Your task to perform on an android device: toggle notification dots Image 0: 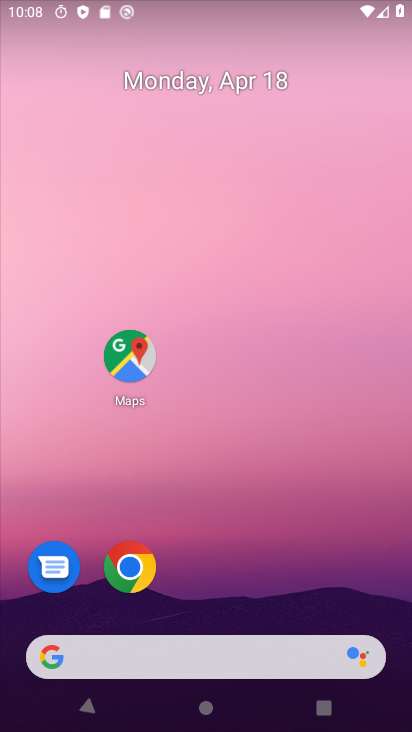
Step 0: drag from (206, 690) to (344, 249)
Your task to perform on an android device: toggle notification dots Image 1: 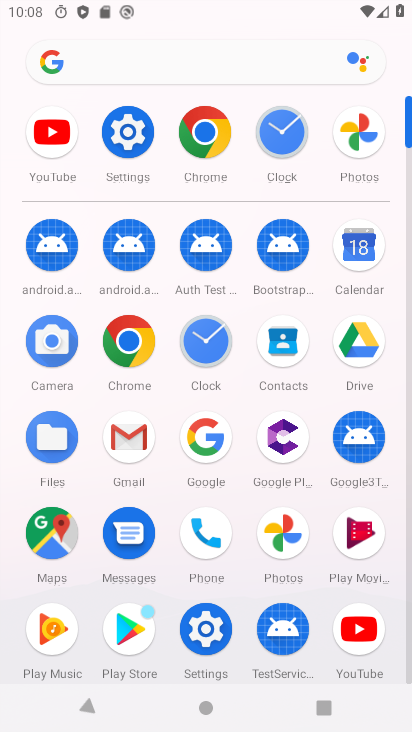
Step 1: click (194, 599)
Your task to perform on an android device: toggle notification dots Image 2: 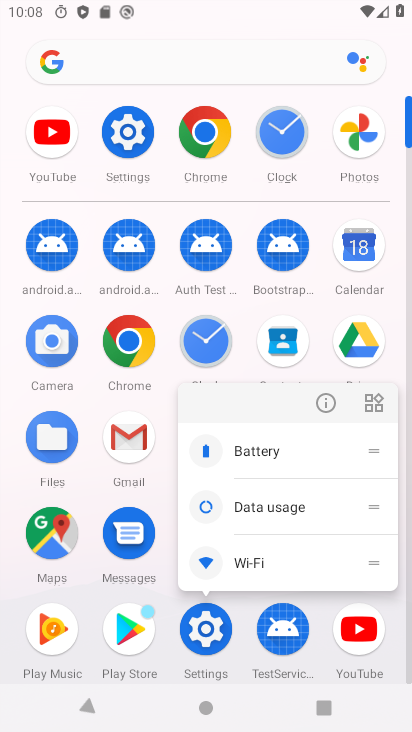
Step 2: click (200, 638)
Your task to perform on an android device: toggle notification dots Image 3: 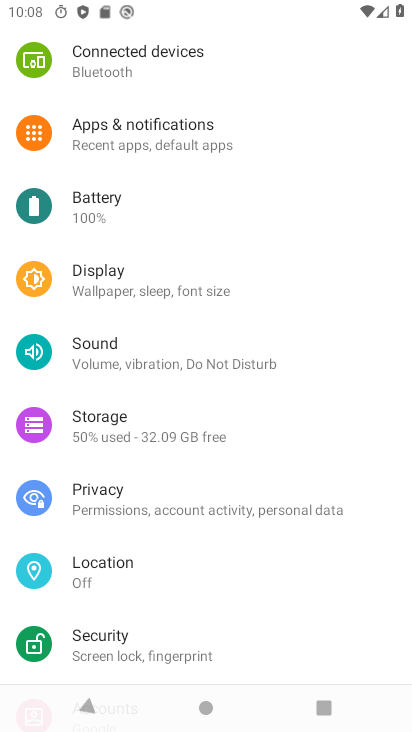
Step 3: drag from (165, 230) to (5, 514)
Your task to perform on an android device: toggle notification dots Image 4: 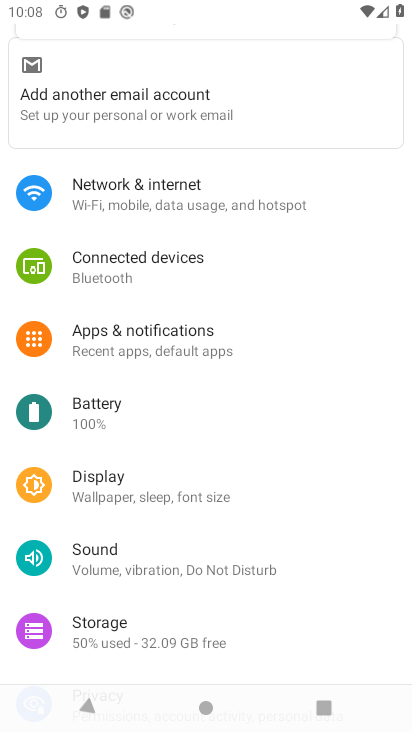
Step 4: click (213, 73)
Your task to perform on an android device: toggle notification dots Image 5: 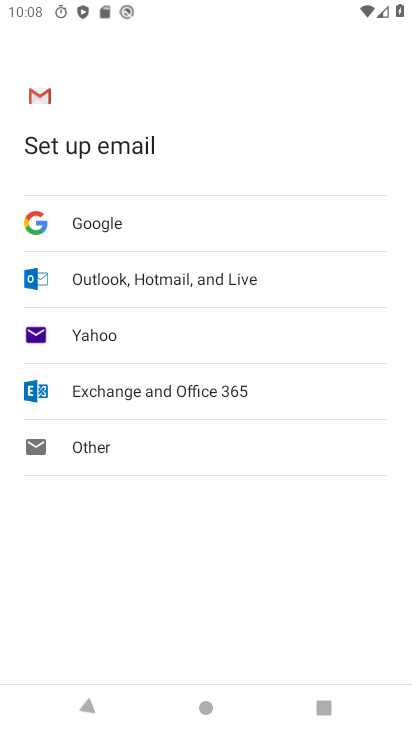
Step 5: click (87, 703)
Your task to perform on an android device: toggle notification dots Image 6: 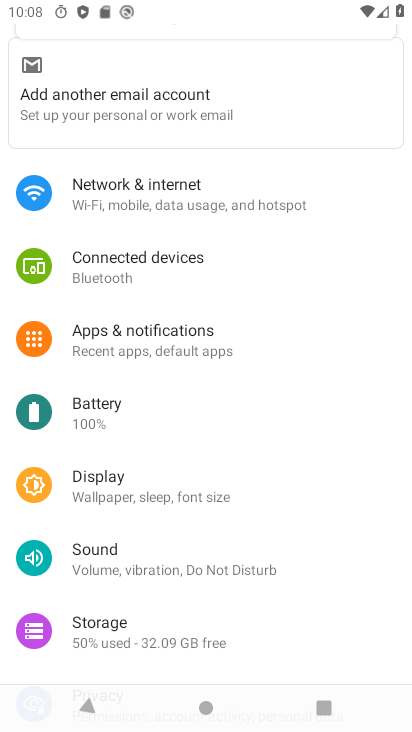
Step 6: drag from (208, 226) to (131, 445)
Your task to perform on an android device: toggle notification dots Image 7: 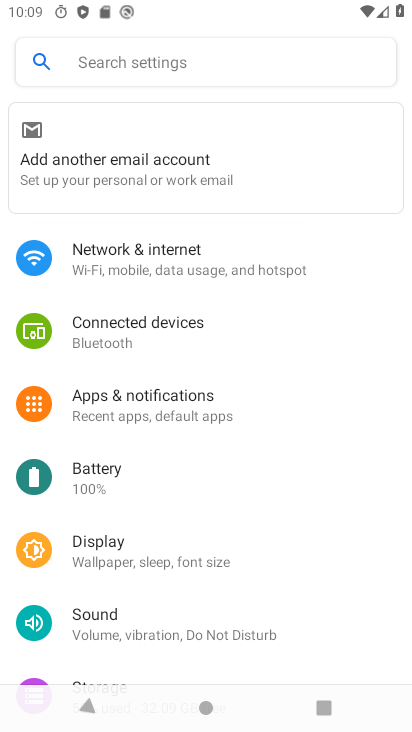
Step 7: click (213, 79)
Your task to perform on an android device: toggle notification dots Image 8: 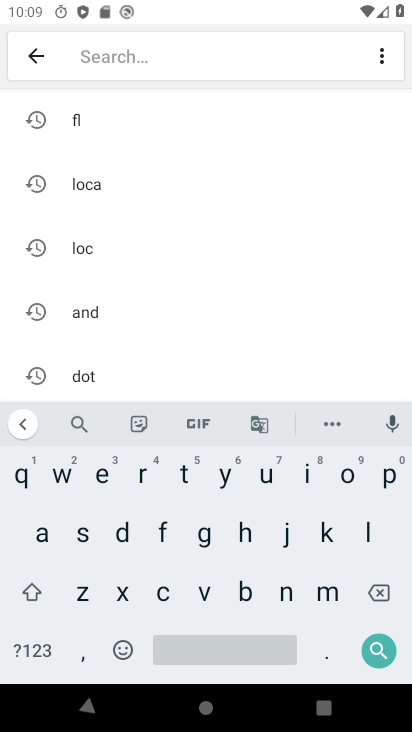
Step 8: click (117, 531)
Your task to perform on an android device: toggle notification dots Image 9: 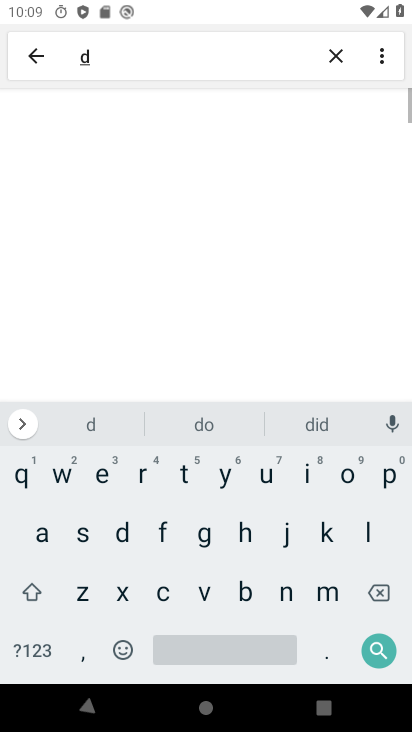
Step 9: click (349, 471)
Your task to perform on an android device: toggle notification dots Image 10: 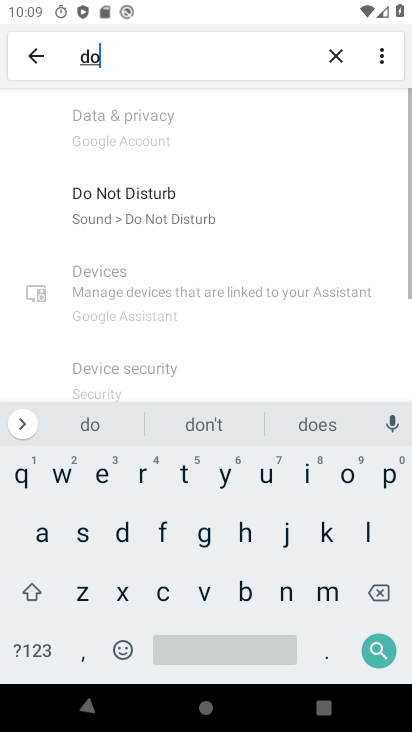
Step 10: click (191, 465)
Your task to perform on an android device: toggle notification dots Image 11: 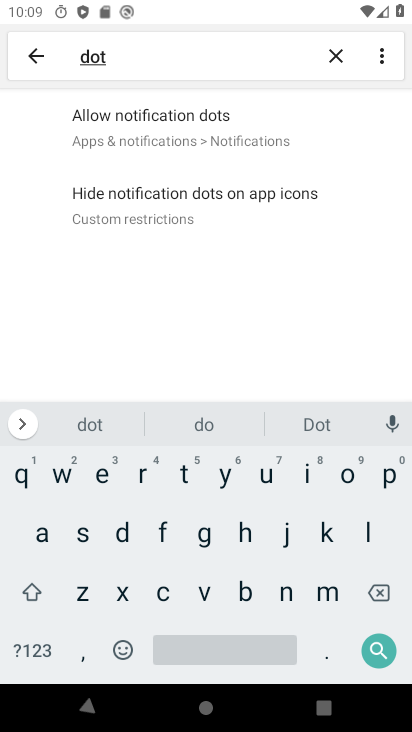
Step 11: click (237, 116)
Your task to perform on an android device: toggle notification dots Image 12: 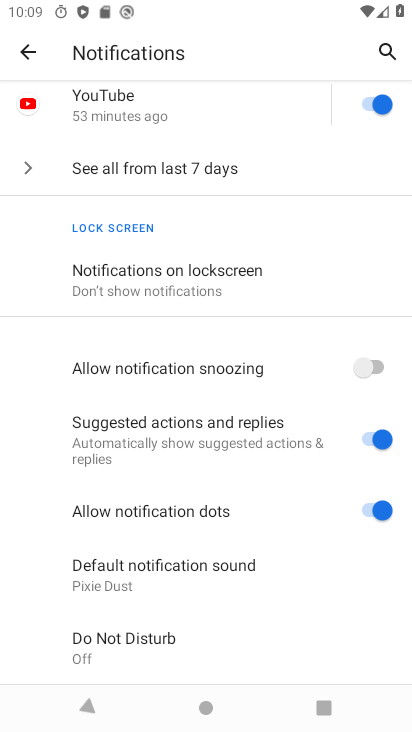
Step 12: click (188, 512)
Your task to perform on an android device: toggle notification dots Image 13: 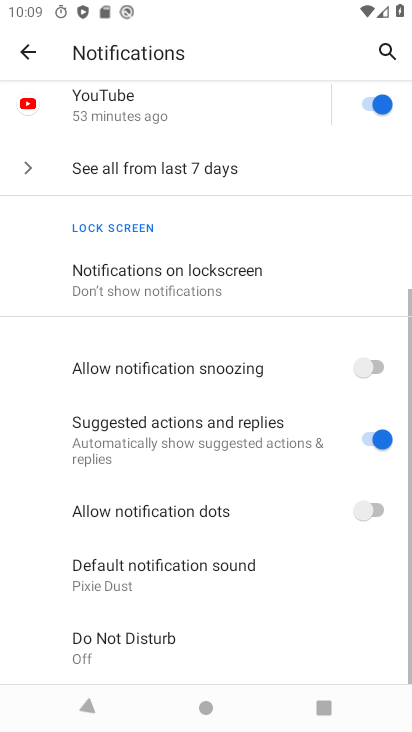
Step 13: click (190, 510)
Your task to perform on an android device: toggle notification dots Image 14: 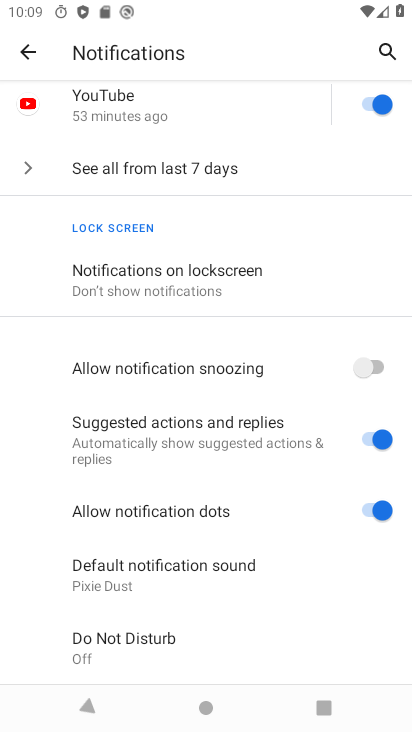
Step 14: task complete